Your task to perform on an android device: Open accessibility settings Image 0: 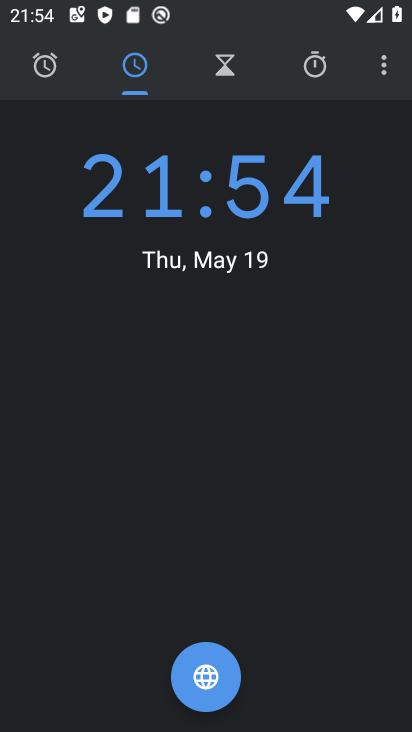
Step 0: press home button
Your task to perform on an android device: Open accessibility settings Image 1: 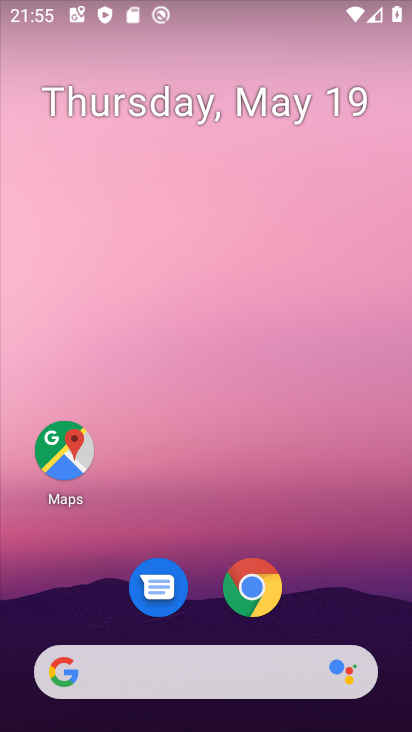
Step 1: drag from (215, 675) to (170, 157)
Your task to perform on an android device: Open accessibility settings Image 2: 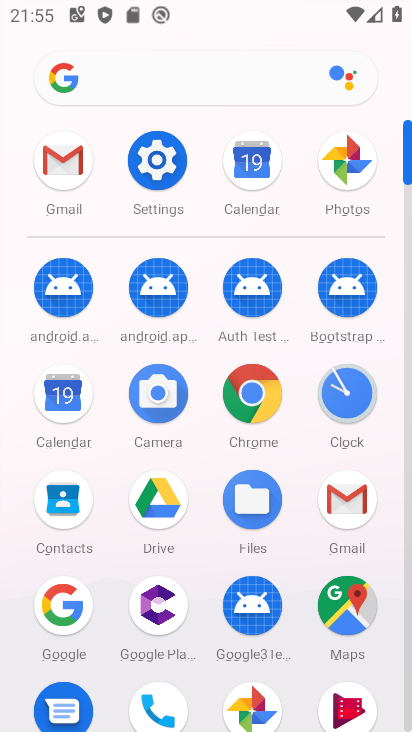
Step 2: click (174, 147)
Your task to perform on an android device: Open accessibility settings Image 3: 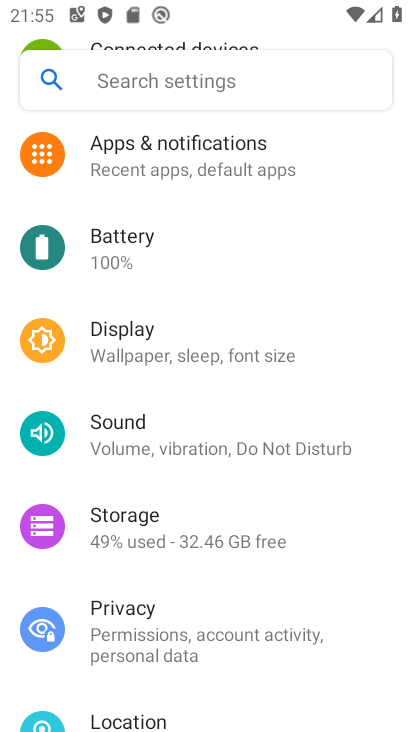
Step 3: drag from (102, 629) to (52, 25)
Your task to perform on an android device: Open accessibility settings Image 4: 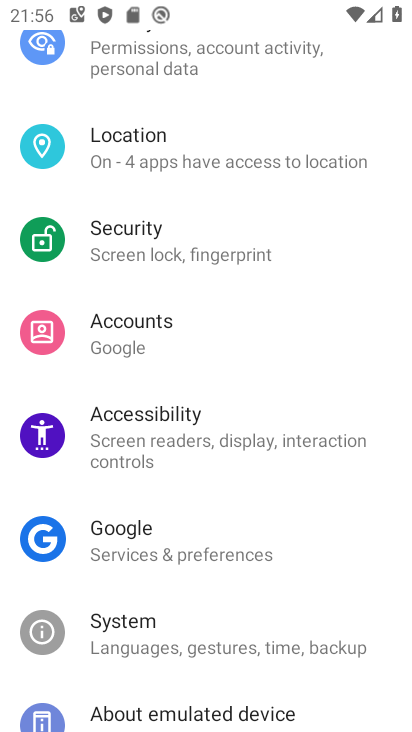
Step 4: click (193, 407)
Your task to perform on an android device: Open accessibility settings Image 5: 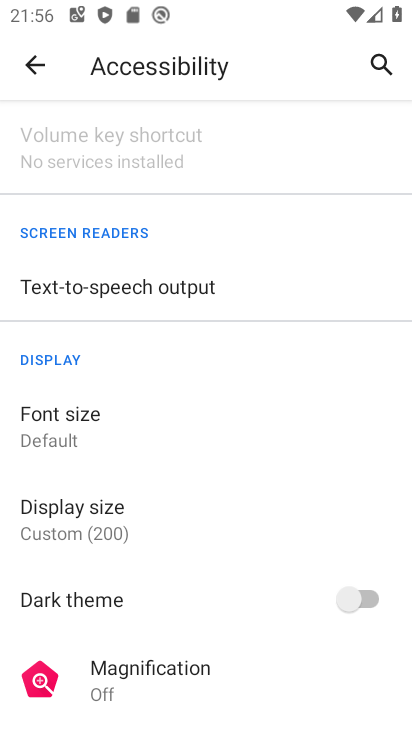
Step 5: task complete